Your task to perform on an android device: Play the last video I watched on Youtube Image 0: 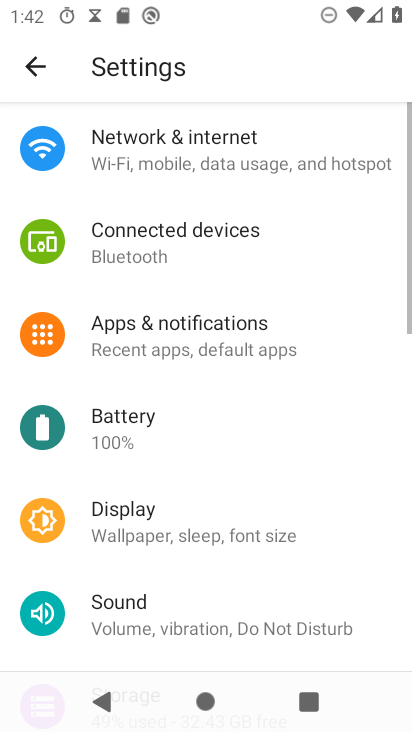
Step 0: press home button
Your task to perform on an android device: Play the last video I watched on Youtube Image 1: 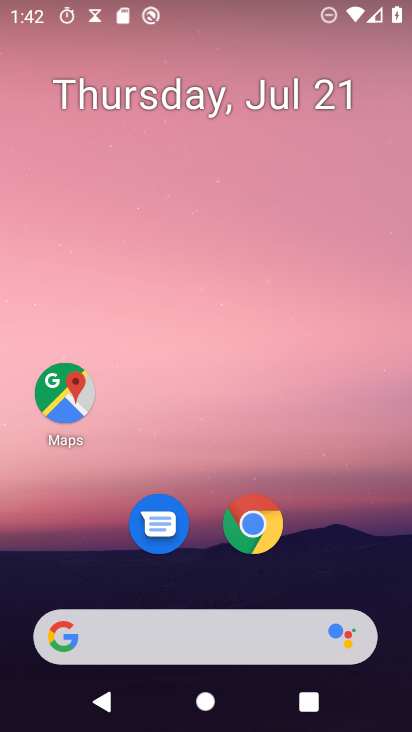
Step 1: drag from (255, 634) to (374, 174)
Your task to perform on an android device: Play the last video I watched on Youtube Image 2: 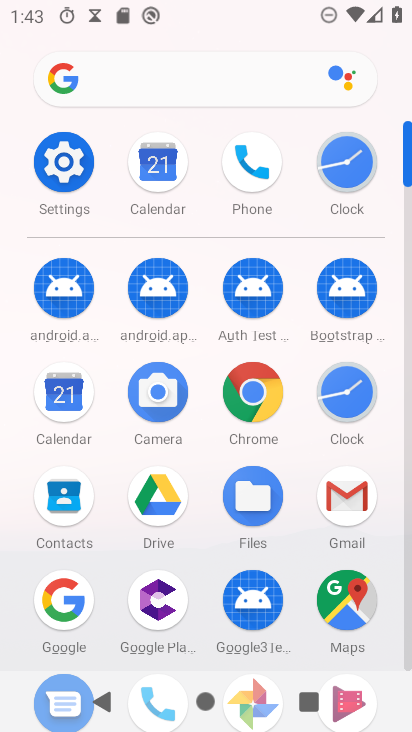
Step 2: drag from (310, 566) to (357, 127)
Your task to perform on an android device: Play the last video I watched on Youtube Image 3: 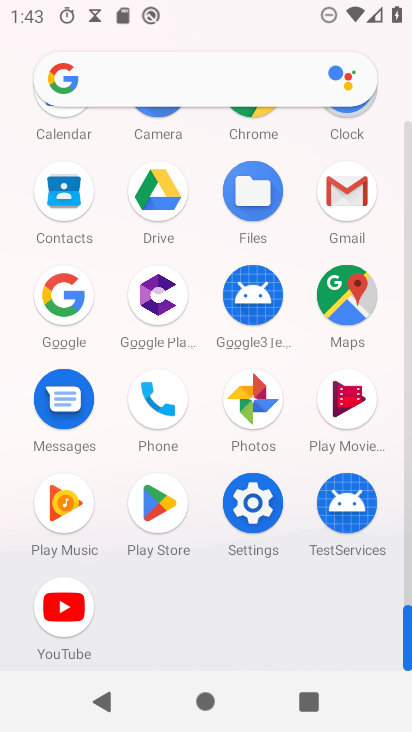
Step 3: click (74, 608)
Your task to perform on an android device: Play the last video I watched on Youtube Image 4: 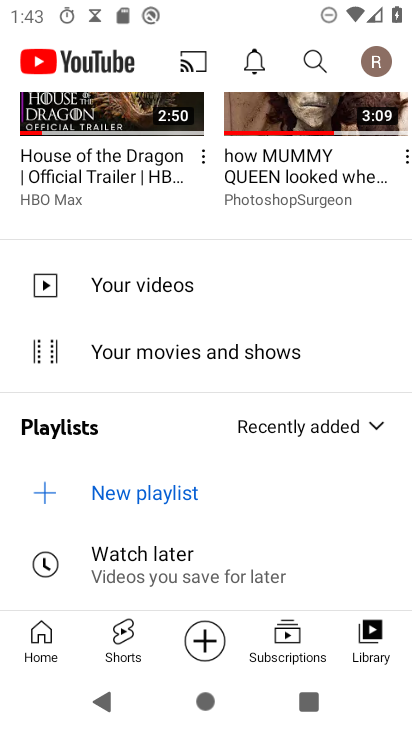
Step 4: drag from (245, 269) to (138, 572)
Your task to perform on an android device: Play the last video I watched on Youtube Image 5: 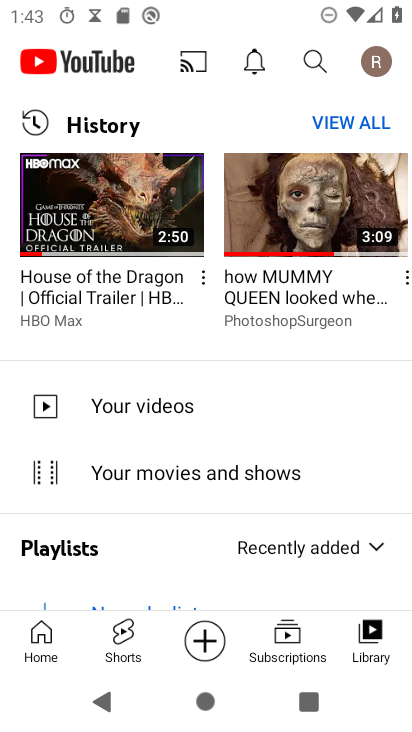
Step 5: click (119, 206)
Your task to perform on an android device: Play the last video I watched on Youtube Image 6: 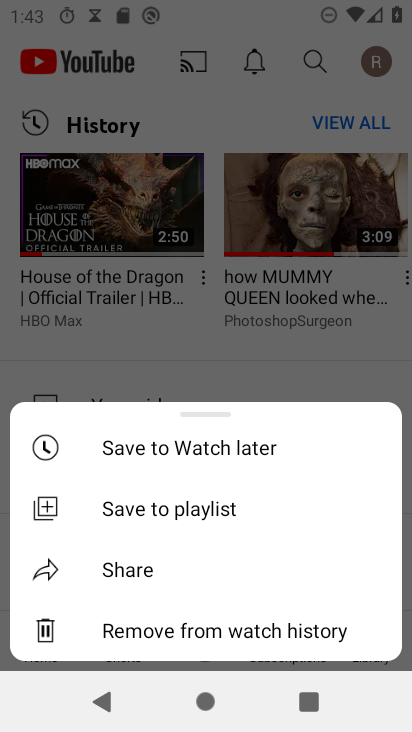
Step 6: click (130, 207)
Your task to perform on an android device: Play the last video I watched on Youtube Image 7: 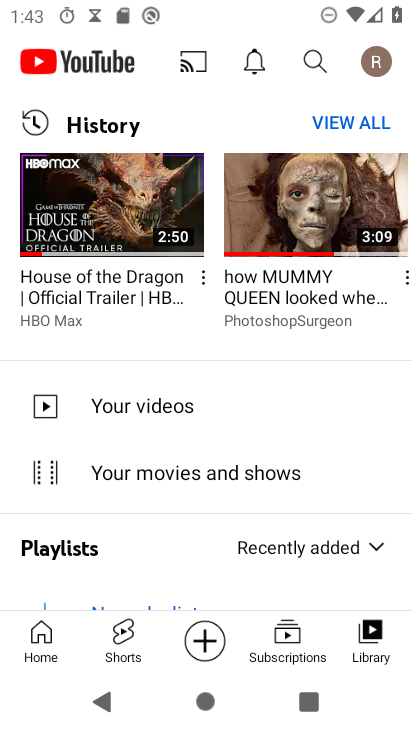
Step 7: click (130, 205)
Your task to perform on an android device: Play the last video I watched on Youtube Image 8: 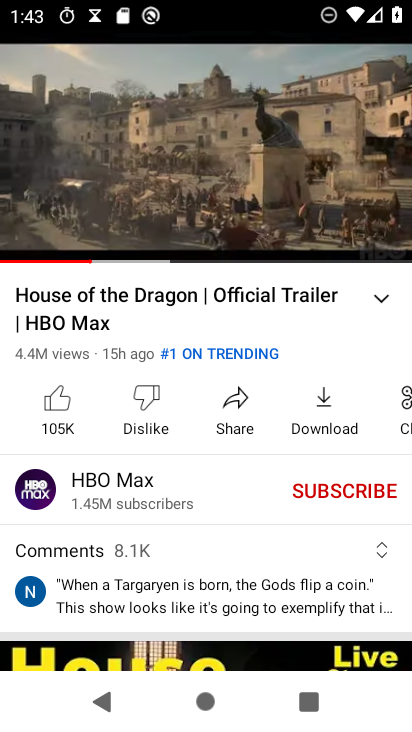
Step 8: click (211, 133)
Your task to perform on an android device: Play the last video I watched on Youtube Image 9: 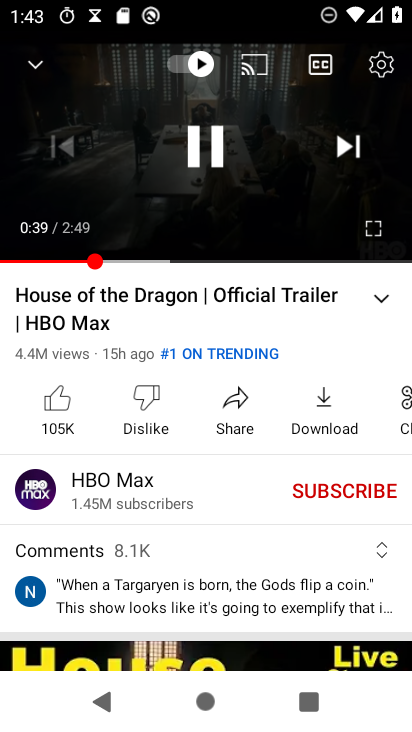
Step 9: click (208, 167)
Your task to perform on an android device: Play the last video I watched on Youtube Image 10: 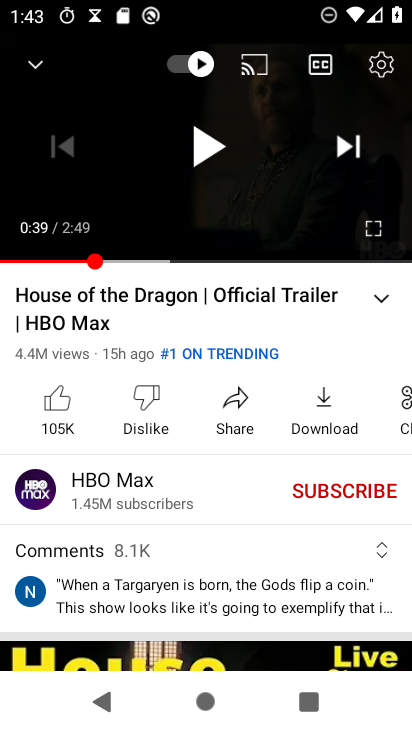
Step 10: task complete